Your task to perform on an android device: Show me productivity apps on the Play Store Image 0: 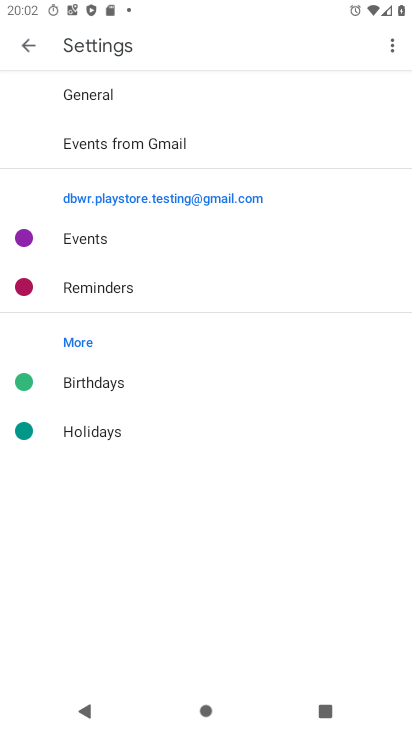
Step 0: press home button
Your task to perform on an android device: Show me productivity apps on the Play Store Image 1: 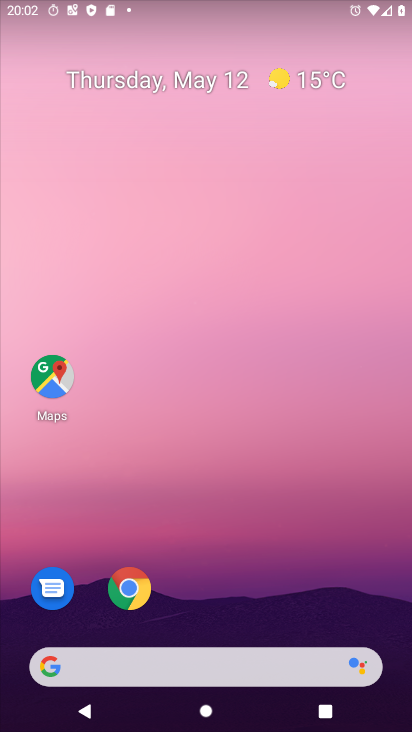
Step 1: drag from (177, 612) to (229, 246)
Your task to perform on an android device: Show me productivity apps on the Play Store Image 2: 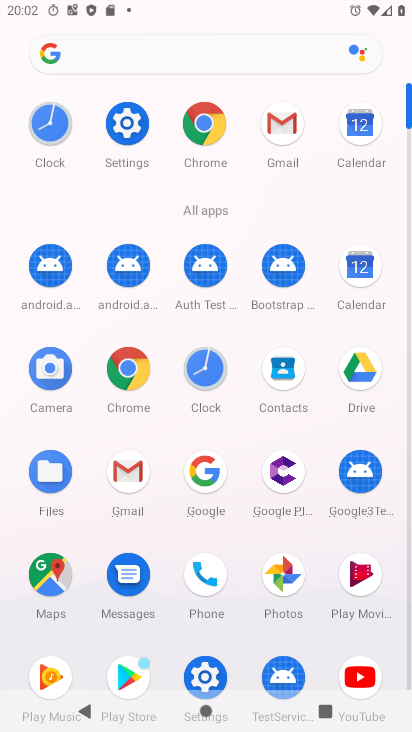
Step 2: click (129, 674)
Your task to perform on an android device: Show me productivity apps on the Play Store Image 3: 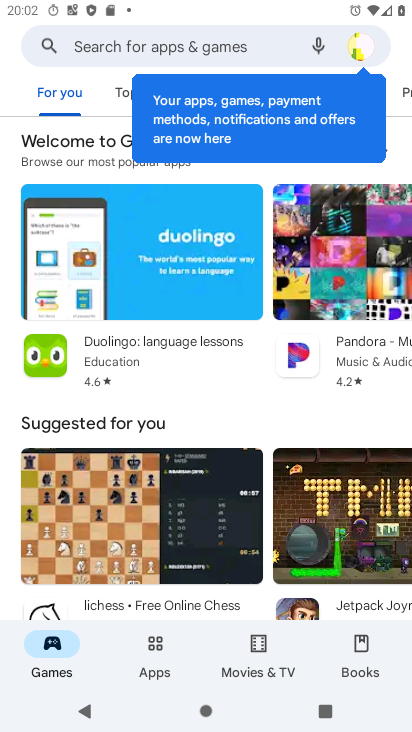
Step 3: click (141, 668)
Your task to perform on an android device: Show me productivity apps on the Play Store Image 4: 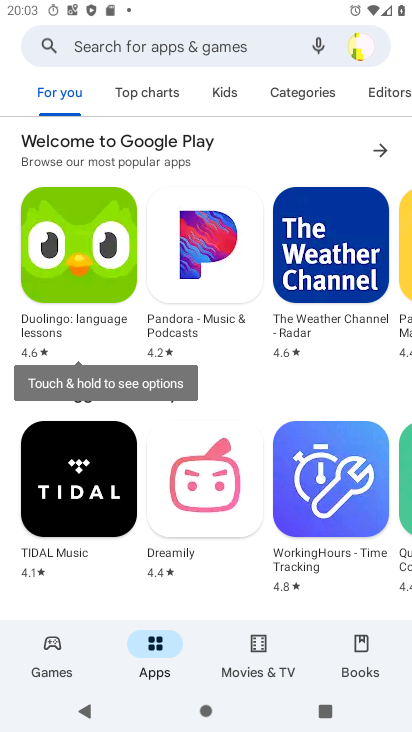
Step 4: click (314, 95)
Your task to perform on an android device: Show me productivity apps on the Play Store Image 5: 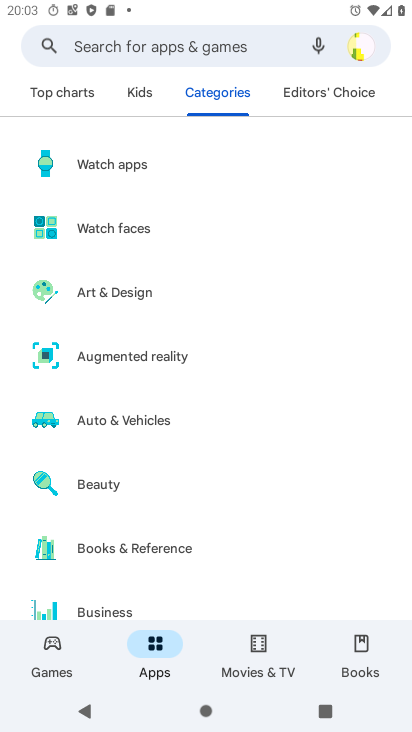
Step 5: drag from (202, 533) to (249, 112)
Your task to perform on an android device: Show me productivity apps on the Play Store Image 6: 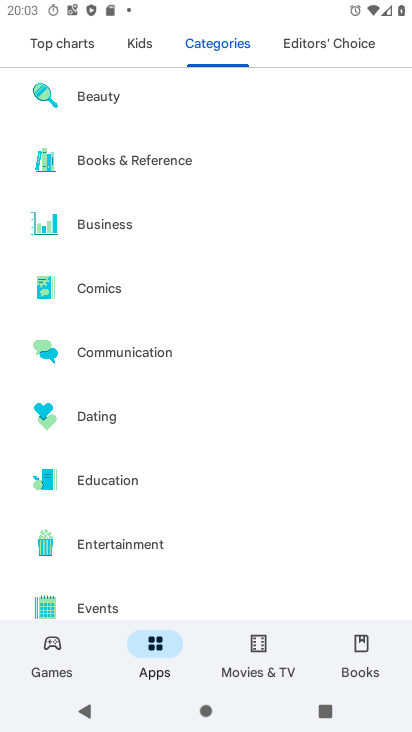
Step 6: drag from (245, 557) to (277, 264)
Your task to perform on an android device: Show me productivity apps on the Play Store Image 7: 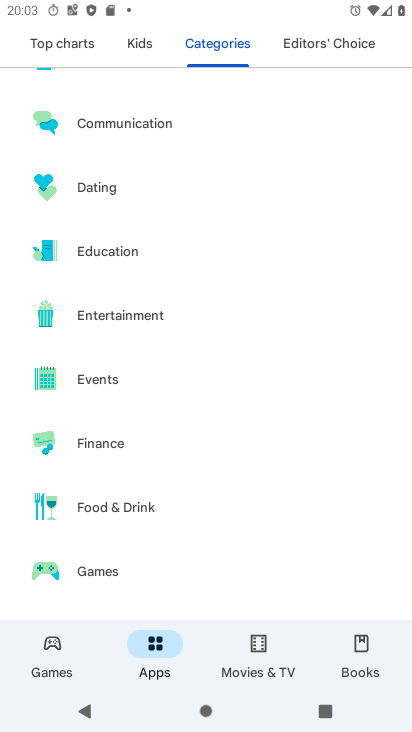
Step 7: drag from (201, 560) to (231, 183)
Your task to perform on an android device: Show me productivity apps on the Play Store Image 8: 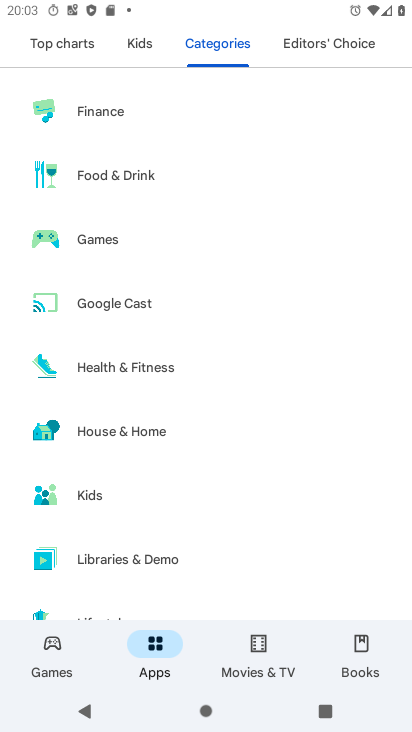
Step 8: drag from (213, 597) to (256, 242)
Your task to perform on an android device: Show me productivity apps on the Play Store Image 9: 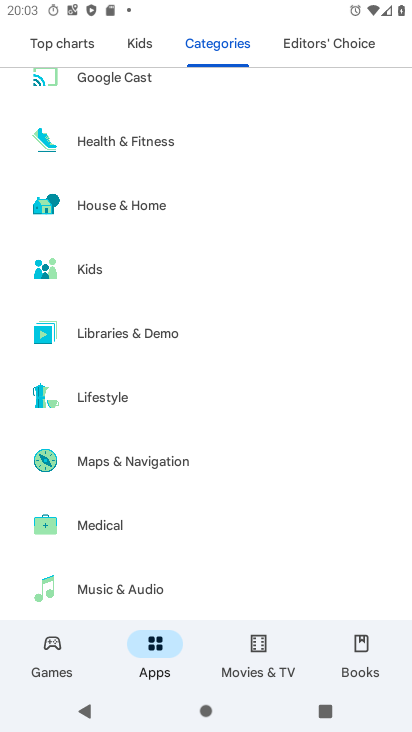
Step 9: drag from (231, 560) to (256, 196)
Your task to perform on an android device: Show me productivity apps on the Play Store Image 10: 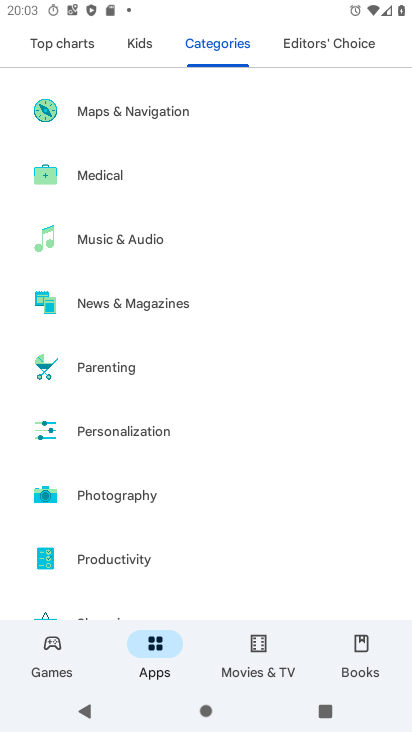
Step 10: click (121, 557)
Your task to perform on an android device: Show me productivity apps on the Play Store Image 11: 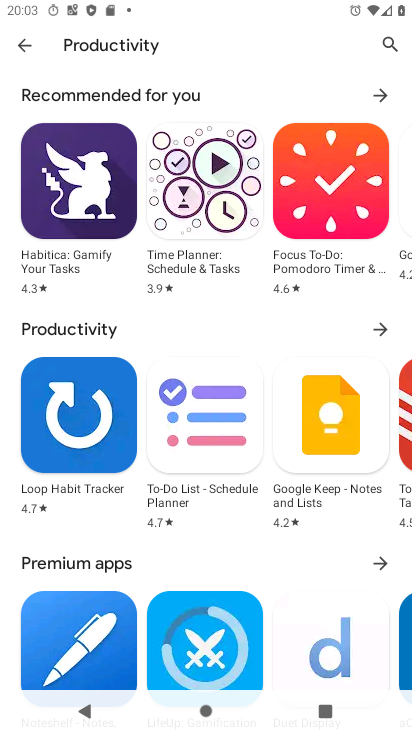
Step 11: task complete